Your task to perform on an android device: Do I have any events tomorrow? Image 0: 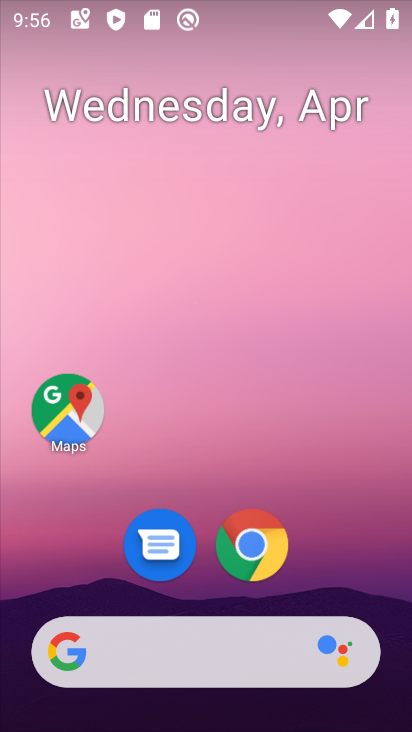
Step 0: drag from (351, 519) to (329, 26)
Your task to perform on an android device: Do I have any events tomorrow? Image 1: 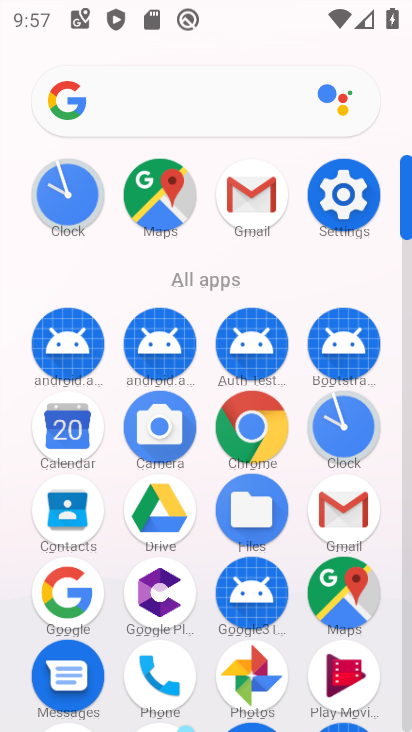
Step 1: click (57, 434)
Your task to perform on an android device: Do I have any events tomorrow? Image 2: 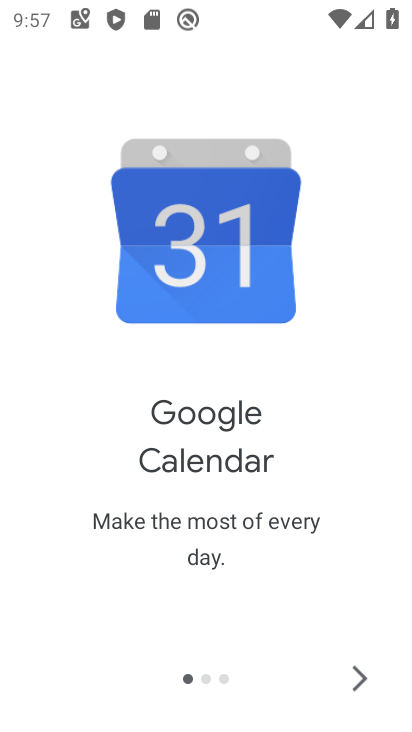
Step 2: click (357, 683)
Your task to perform on an android device: Do I have any events tomorrow? Image 3: 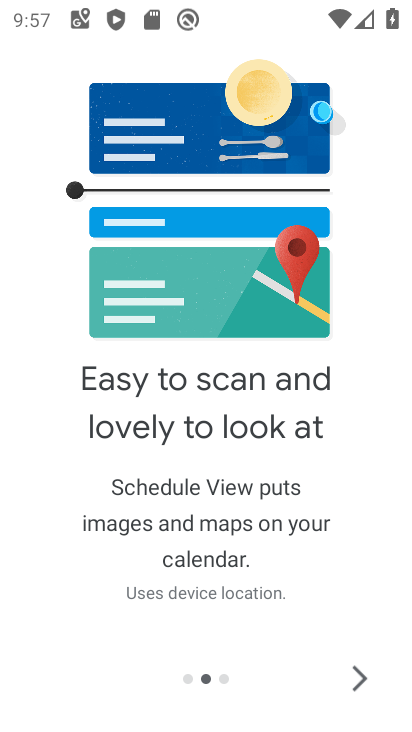
Step 3: click (363, 677)
Your task to perform on an android device: Do I have any events tomorrow? Image 4: 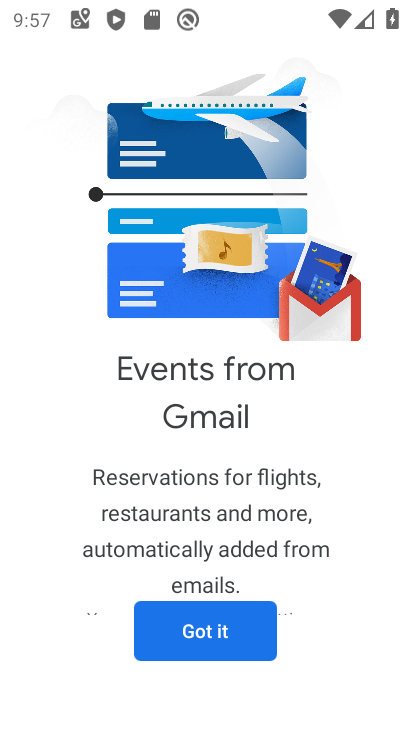
Step 4: click (200, 639)
Your task to perform on an android device: Do I have any events tomorrow? Image 5: 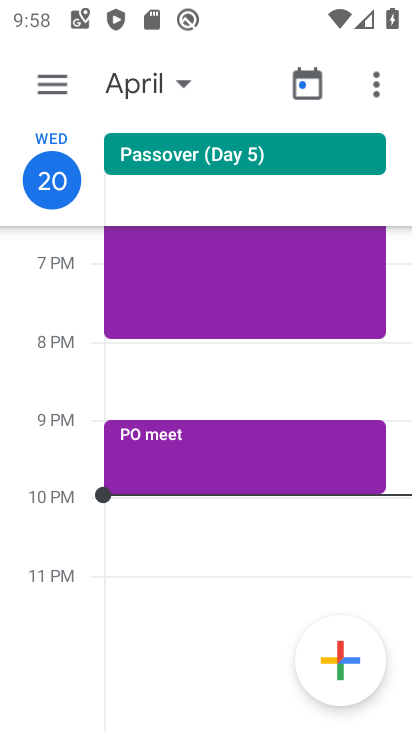
Step 5: click (174, 85)
Your task to perform on an android device: Do I have any events tomorrow? Image 6: 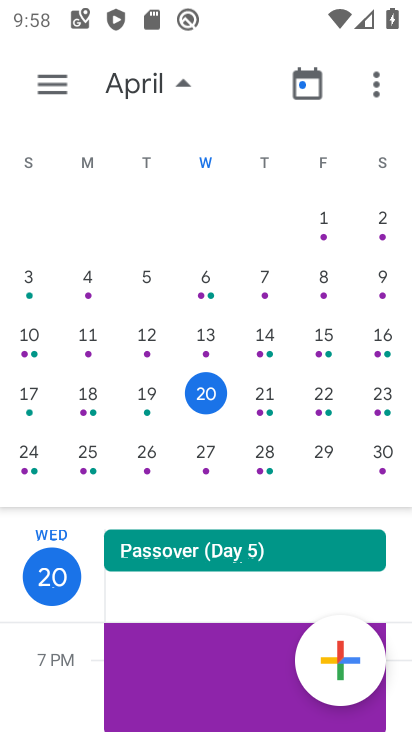
Step 6: click (262, 409)
Your task to perform on an android device: Do I have any events tomorrow? Image 7: 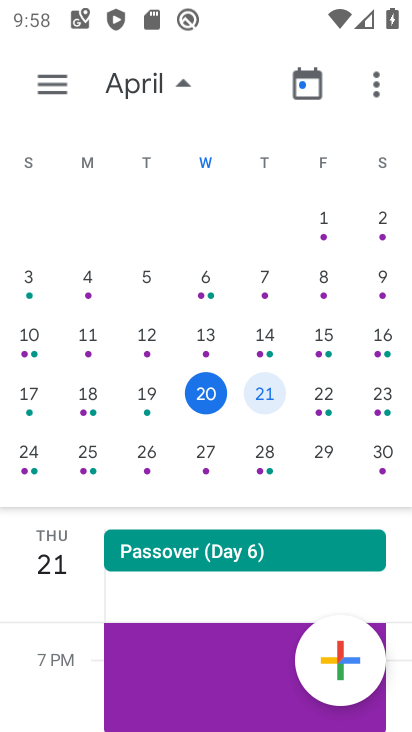
Step 7: drag from (182, 579) to (189, 267)
Your task to perform on an android device: Do I have any events tomorrow? Image 8: 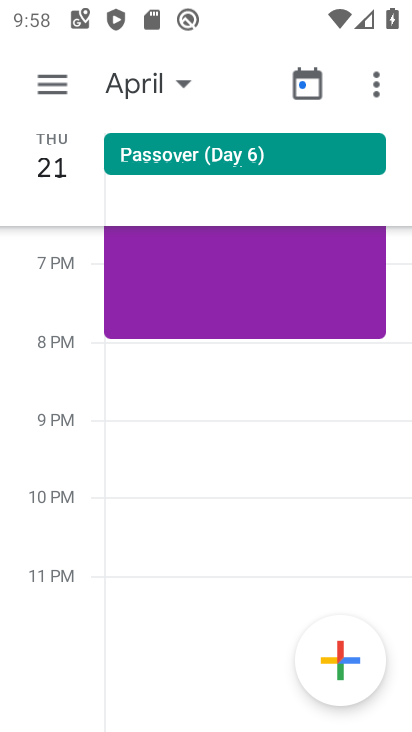
Step 8: click (200, 279)
Your task to perform on an android device: Do I have any events tomorrow? Image 9: 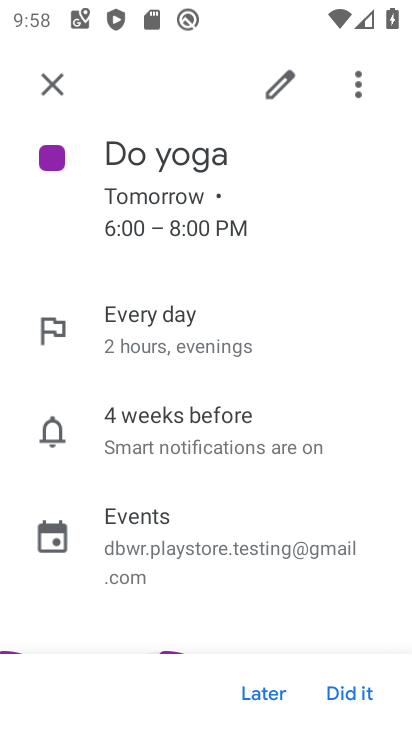
Step 9: task complete